Your task to perform on an android device: Open calendar and show me the fourth week of next month Image 0: 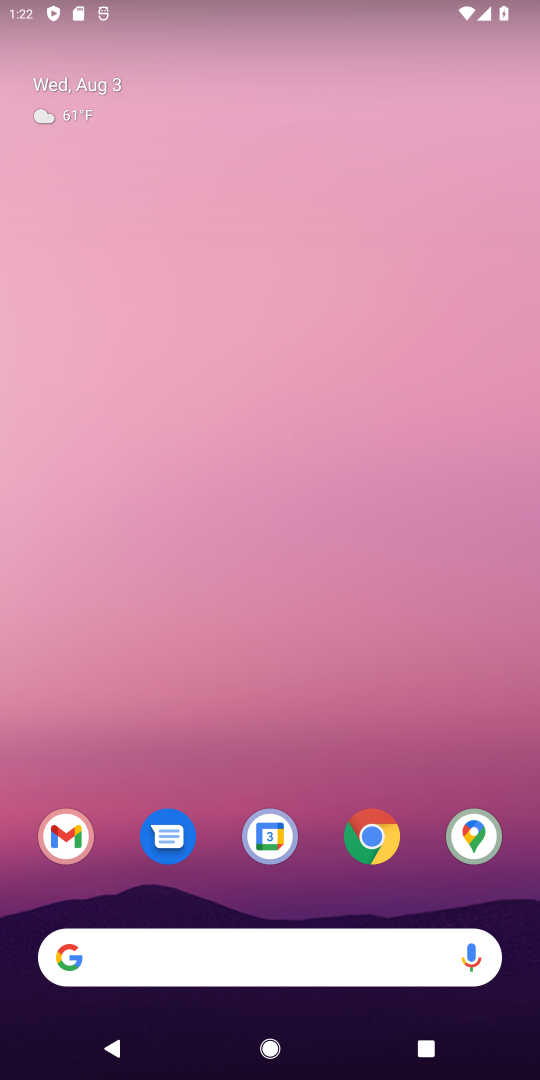
Step 0: drag from (282, 874) to (316, 241)
Your task to perform on an android device: Open calendar and show me the fourth week of next month Image 1: 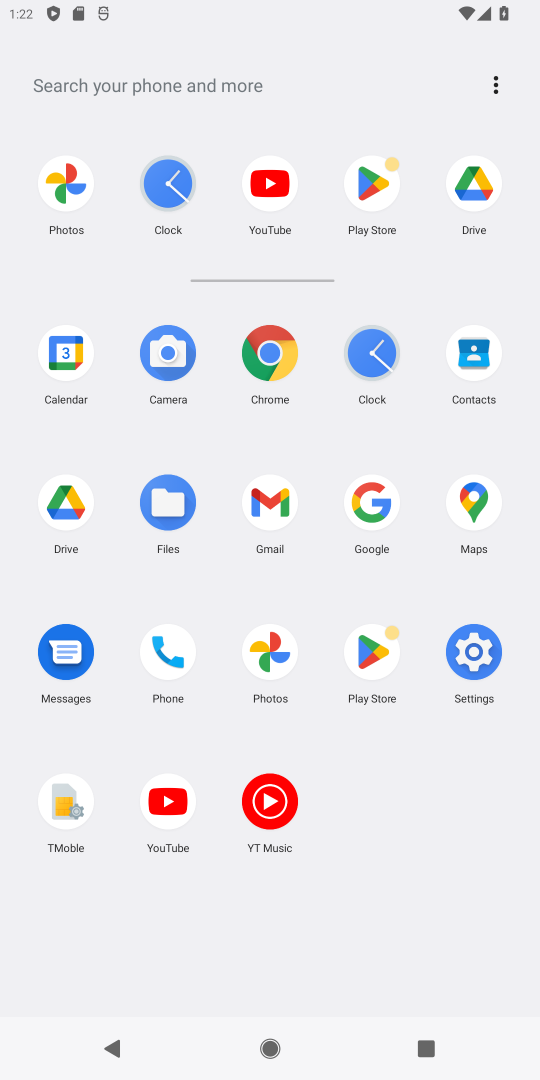
Step 1: click (67, 370)
Your task to perform on an android device: Open calendar and show me the fourth week of next month Image 2: 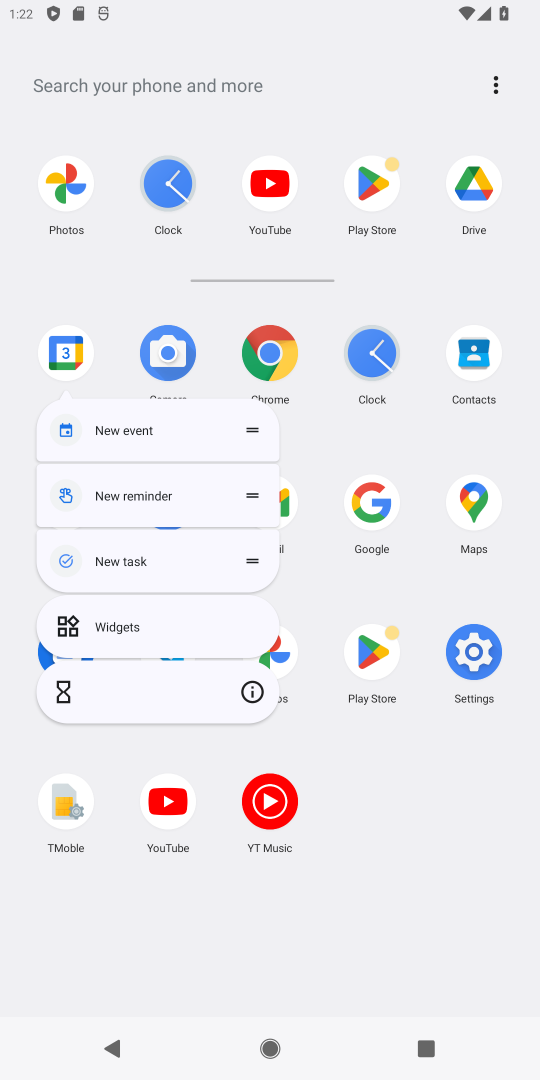
Step 2: click (246, 687)
Your task to perform on an android device: Open calendar and show me the fourth week of next month Image 3: 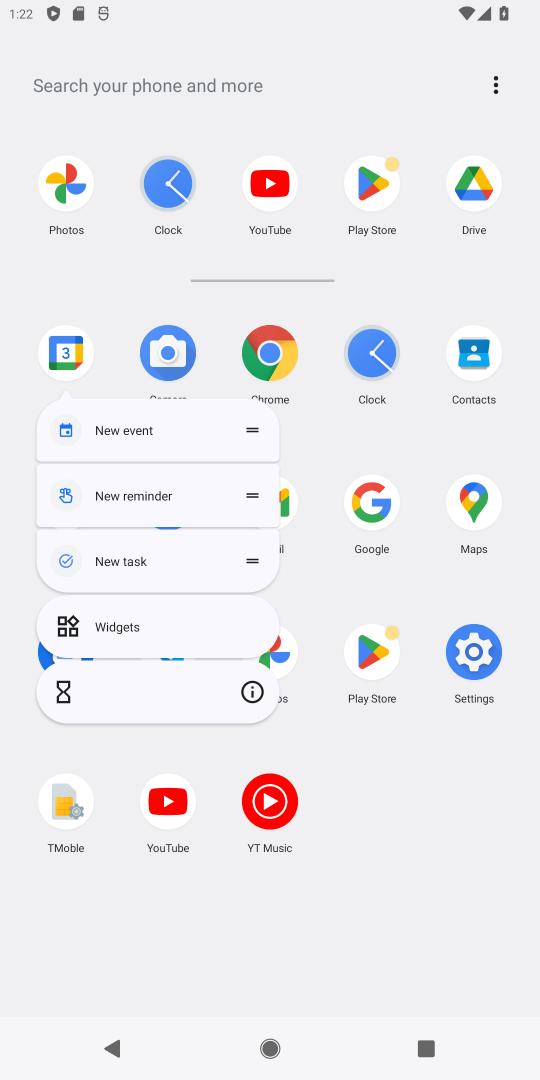
Step 3: click (239, 690)
Your task to perform on an android device: Open calendar and show me the fourth week of next month Image 4: 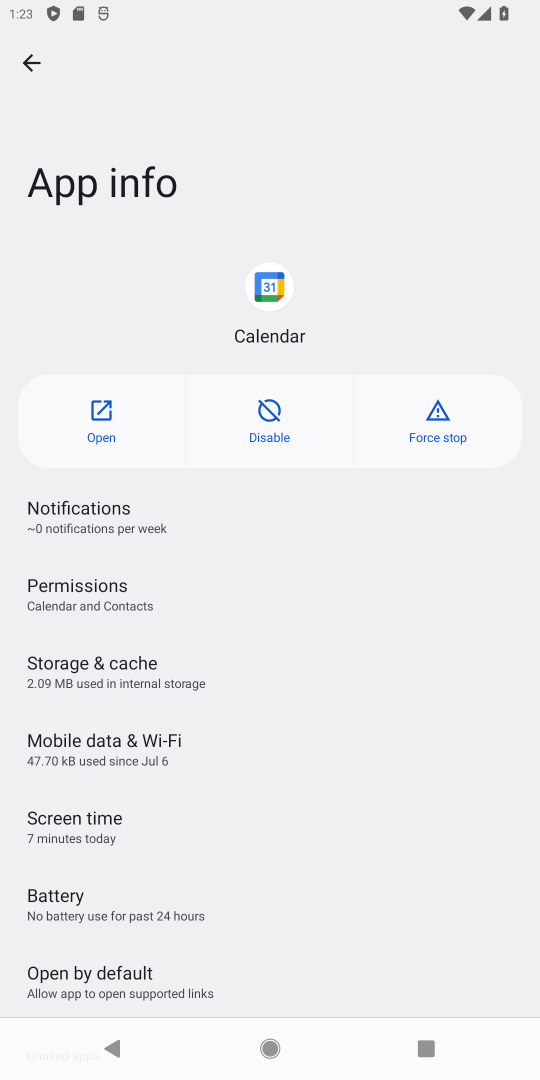
Step 4: click (114, 423)
Your task to perform on an android device: Open calendar and show me the fourth week of next month Image 5: 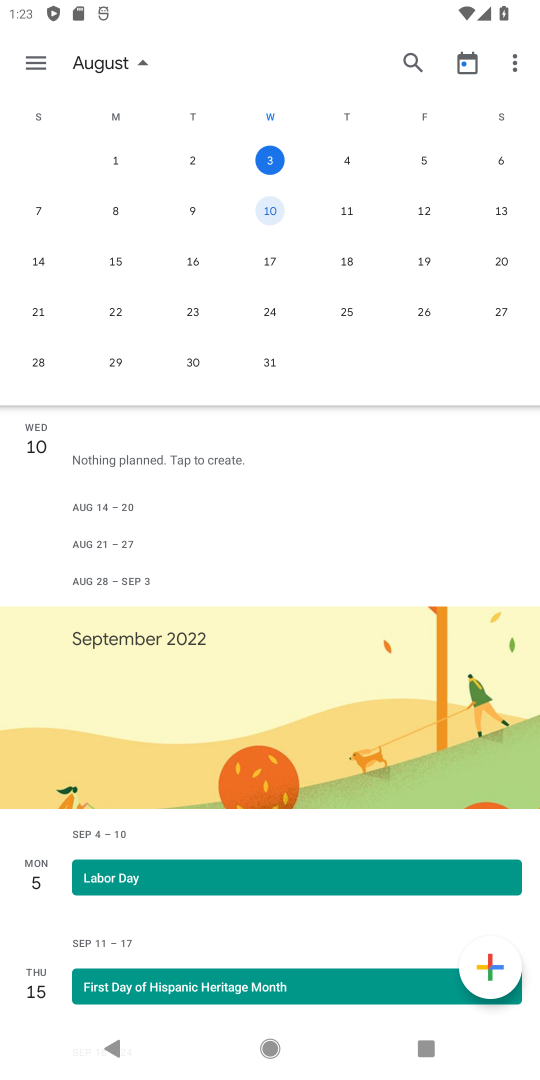
Step 5: drag from (282, 874) to (411, 339)
Your task to perform on an android device: Open calendar and show me the fourth week of next month Image 6: 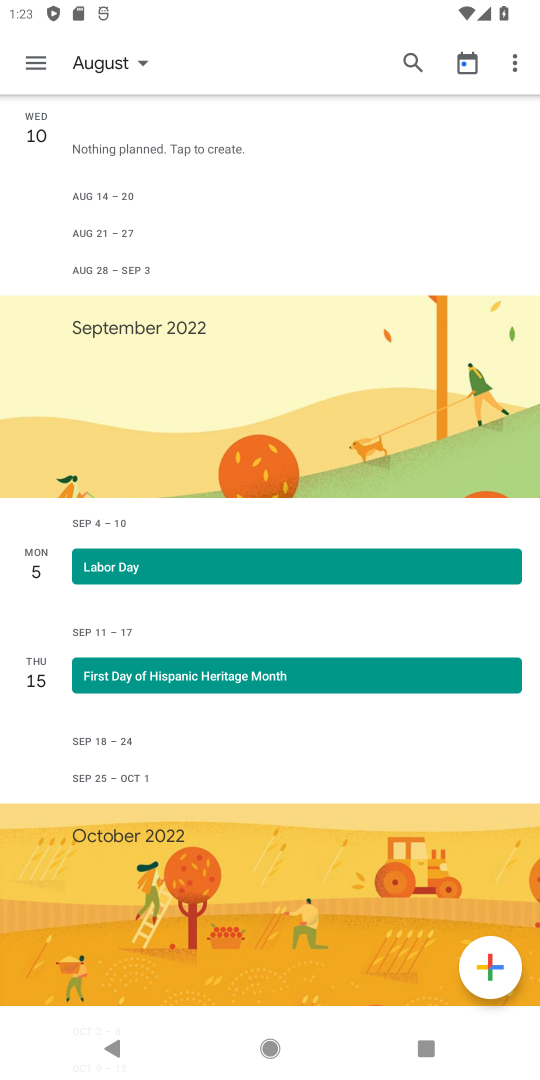
Step 6: drag from (261, 869) to (307, 529)
Your task to perform on an android device: Open calendar and show me the fourth week of next month Image 7: 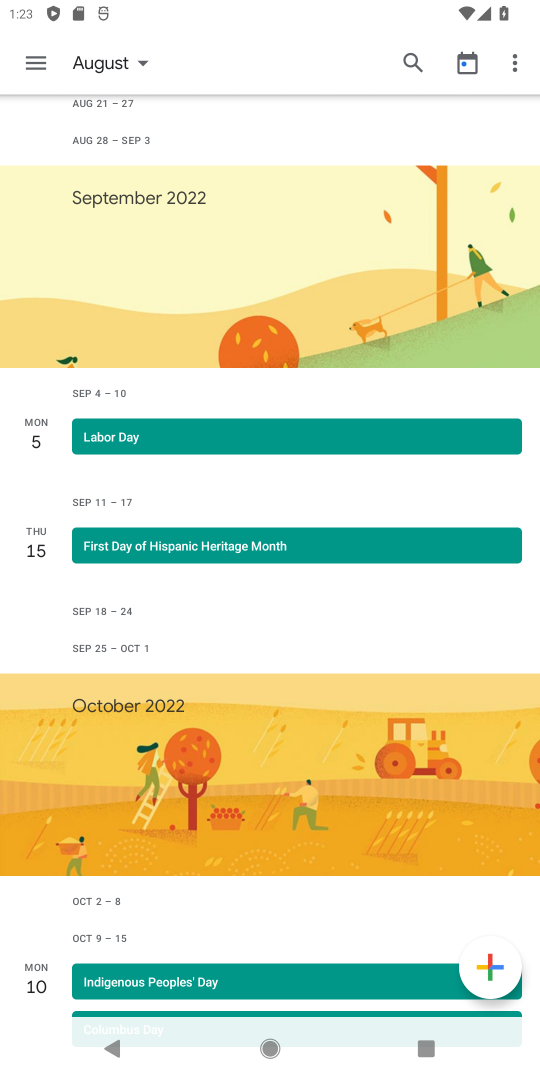
Step 7: drag from (317, 525) to (361, 845)
Your task to perform on an android device: Open calendar and show me the fourth week of next month Image 8: 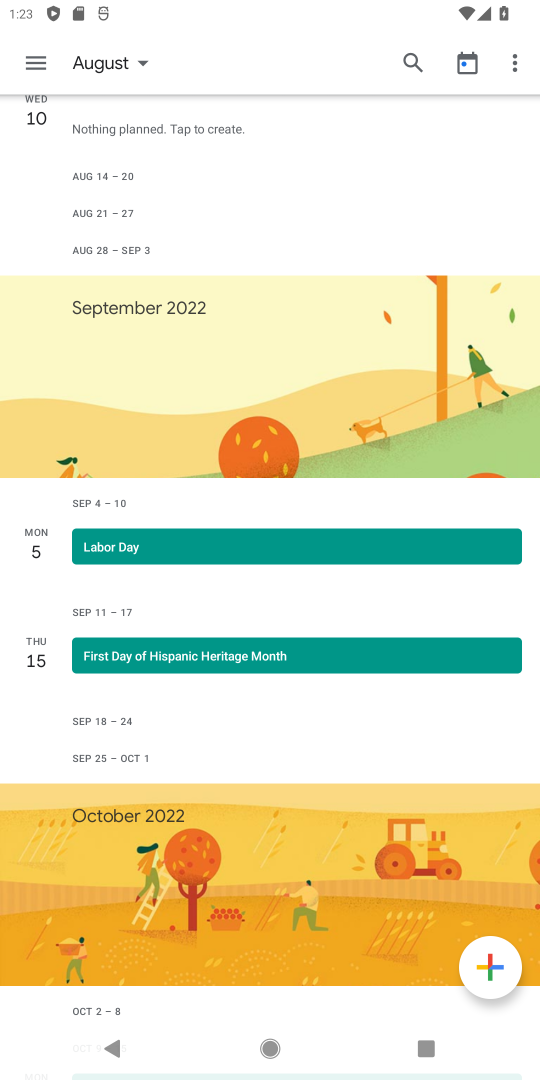
Step 8: click (125, 58)
Your task to perform on an android device: Open calendar and show me the fourth week of next month Image 9: 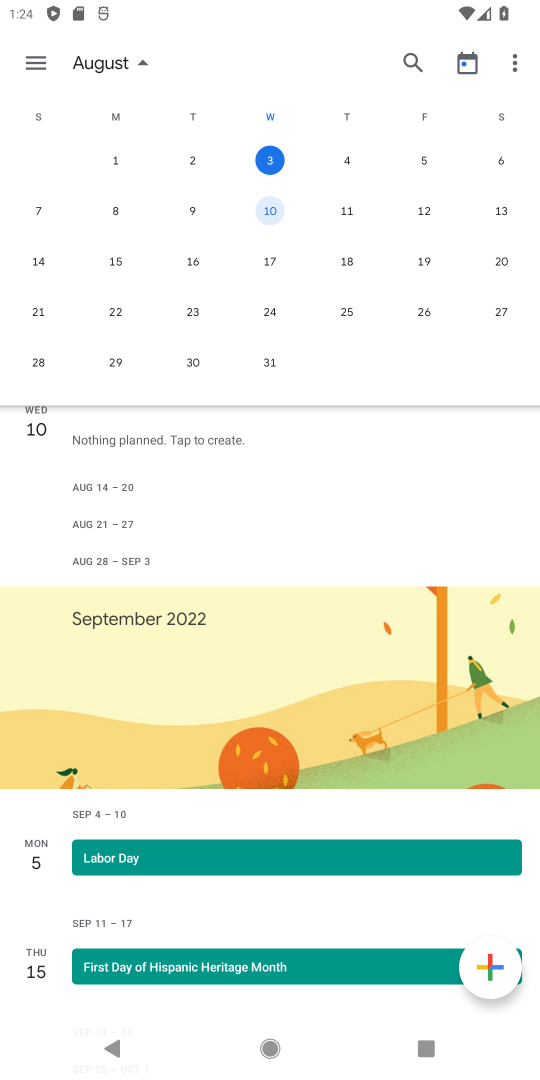
Step 9: drag from (483, 259) to (34, 246)
Your task to perform on an android device: Open calendar and show me the fourth week of next month Image 10: 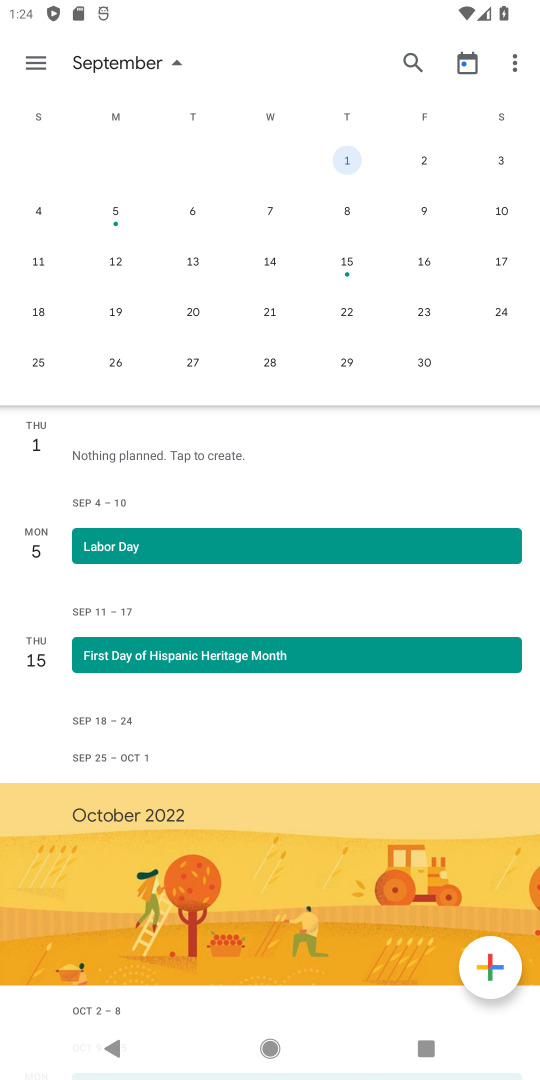
Step 10: drag from (346, 919) to (394, 317)
Your task to perform on an android device: Open calendar and show me the fourth week of next month Image 11: 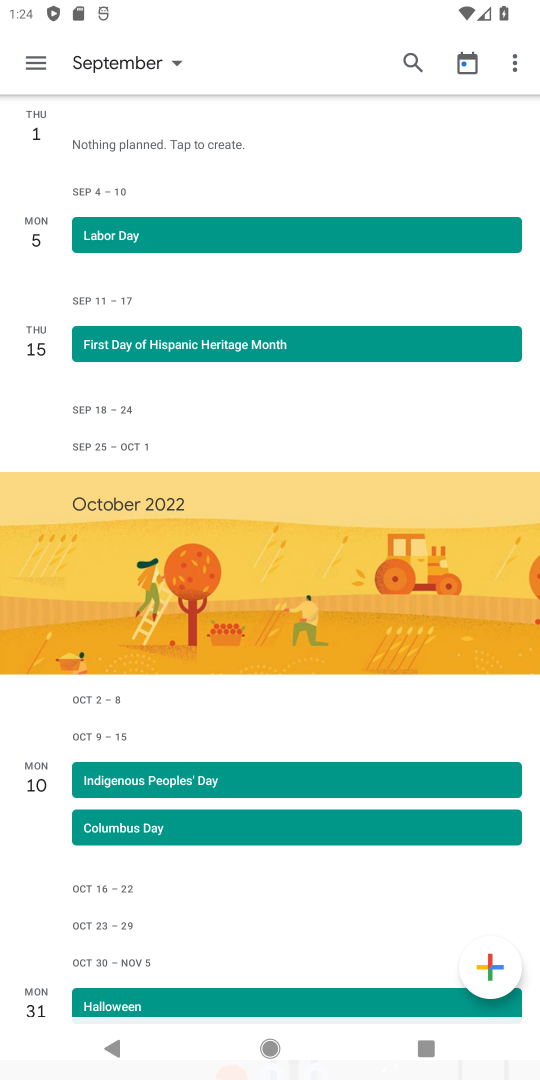
Step 11: click (157, 64)
Your task to perform on an android device: Open calendar and show me the fourth week of next month Image 12: 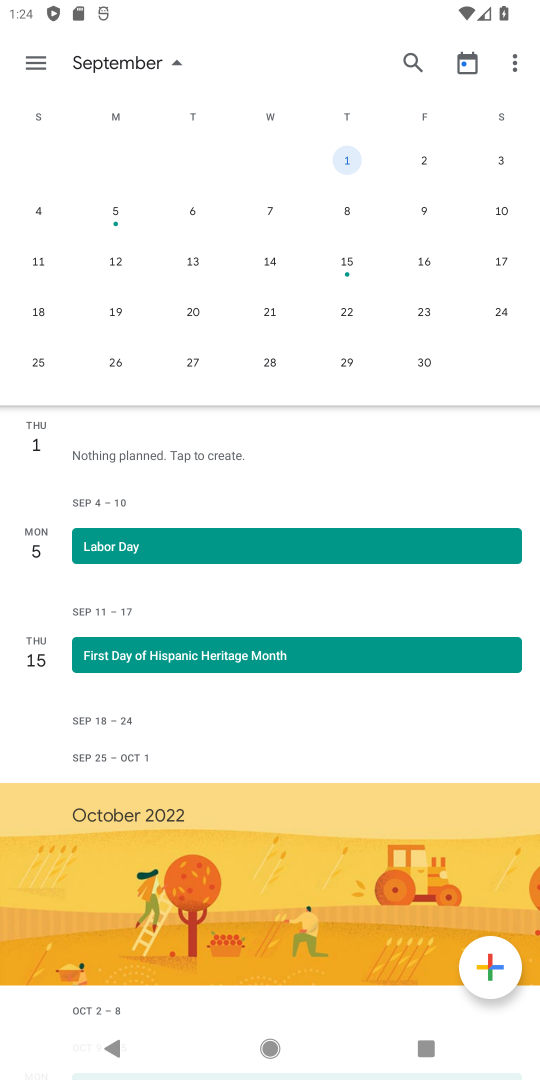
Step 12: click (350, 308)
Your task to perform on an android device: Open calendar and show me the fourth week of next month Image 13: 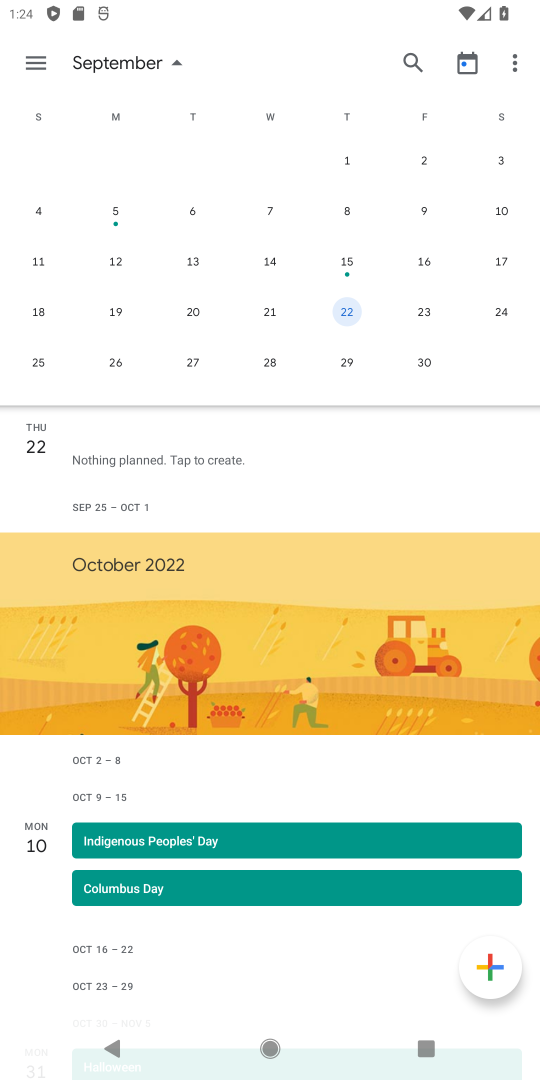
Step 13: task complete